Your task to perform on an android device: Add "alienware area 51" to the cart on target.com, then select checkout. Image 0: 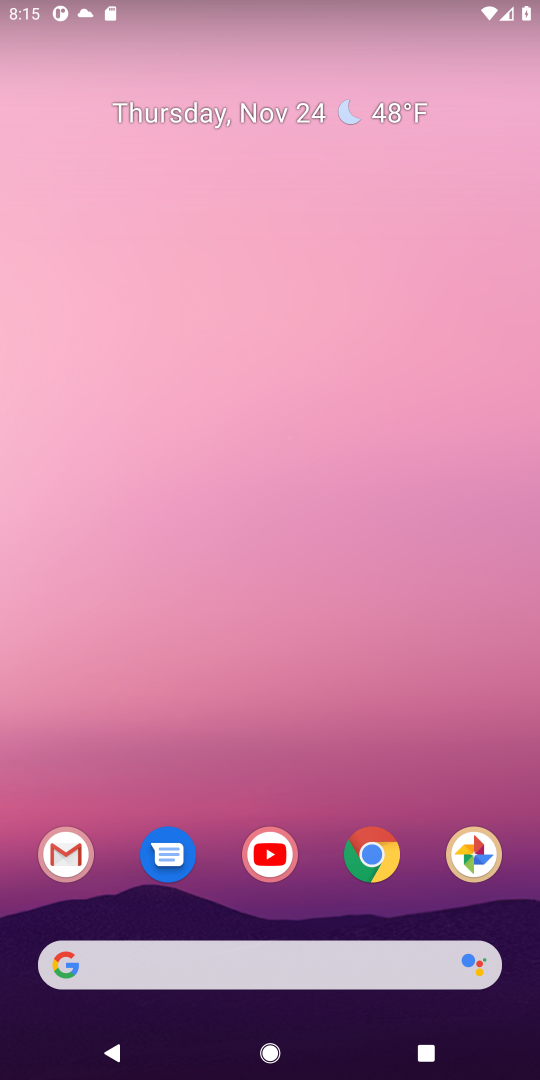
Step 0: click (377, 869)
Your task to perform on an android device: Add "alienware area 51" to the cart on target.com, then select checkout. Image 1: 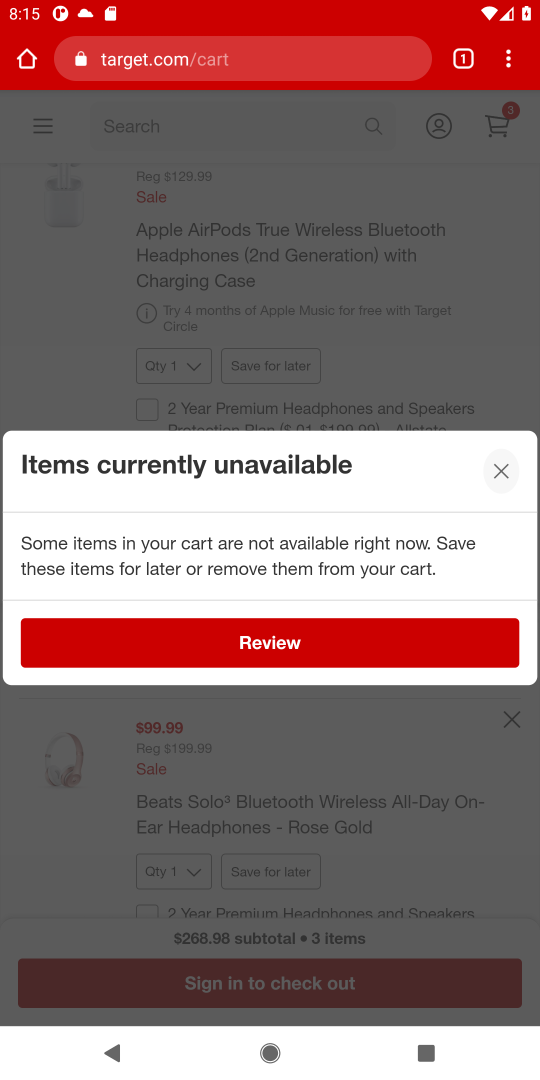
Step 1: click (505, 465)
Your task to perform on an android device: Add "alienware area 51" to the cart on target.com, then select checkout. Image 2: 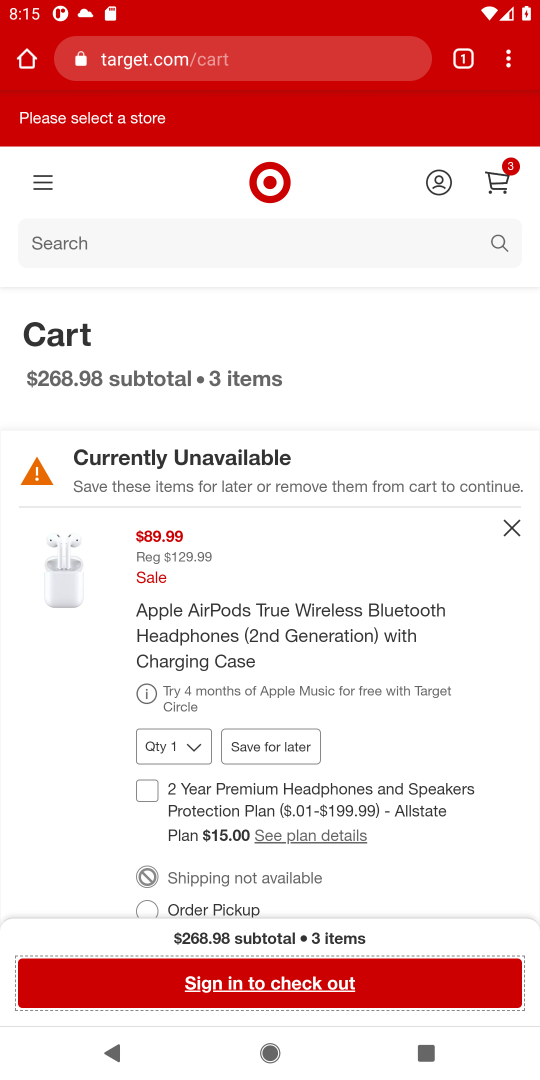
Step 2: click (316, 246)
Your task to perform on an android device: Add "alienware area 51" to the cart on target.com, then select checkout. Image 3: 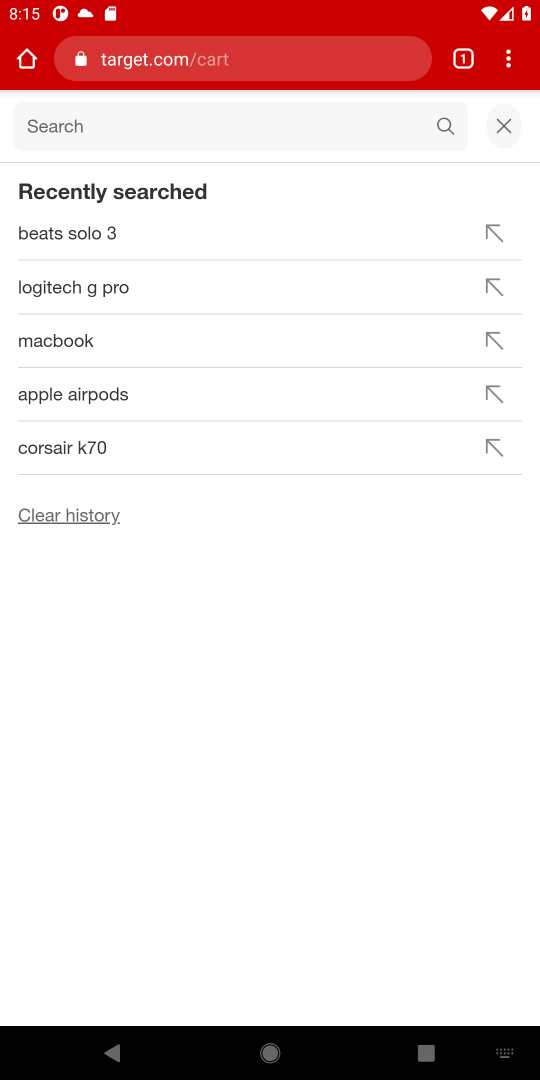
Step 3: click (41, 116)
Your task to perform on an android device: Add "alienware area 51" to the cart on target.com, then select checkout. Image 4: 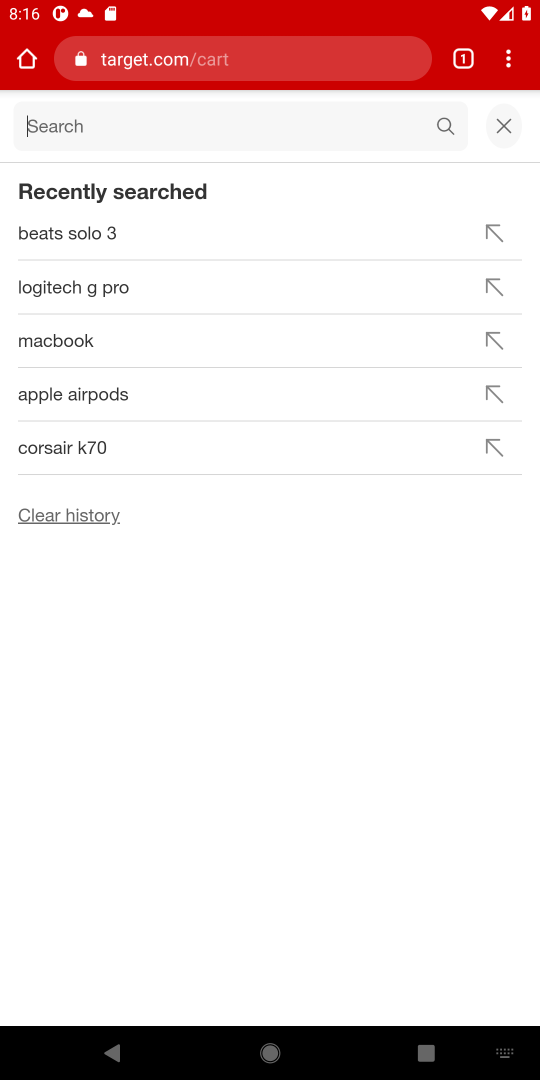
Step 4: type "alienware area 51"
Your task to perform on an android device: Add "alienware area 51" to the cart on target.com, then select checkout. Image 5: 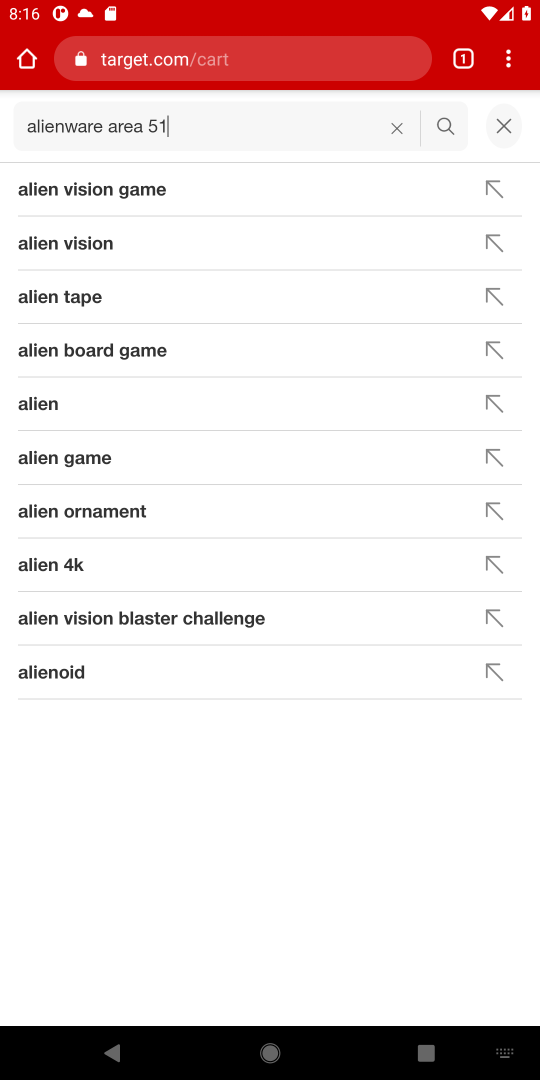
Step 5: click (451, 130)
Your task to perform on an android device: Add "alienware area 51" to the cart on target.com, then select checkout. Image 6: 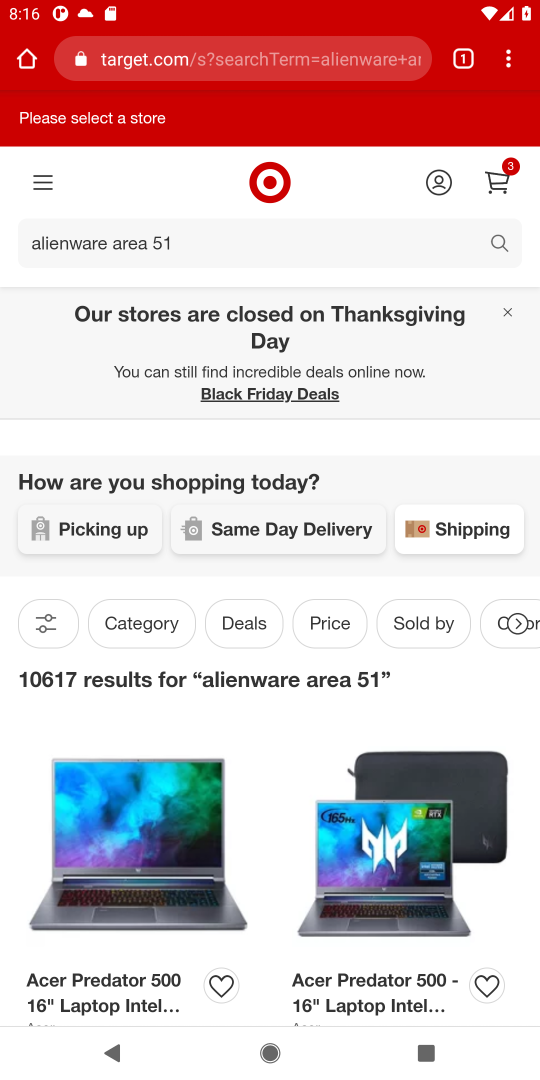
Step 6: task complete